Your task to perform on an android device: Open calendar and show me the fourth week of next month Image 0: 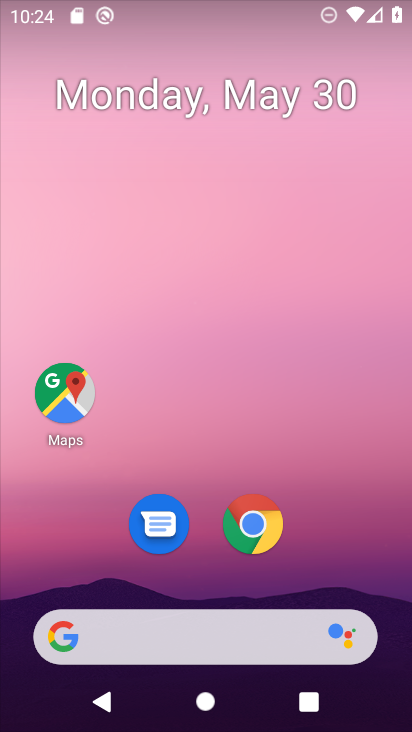
Step 0: drag from (290, 448) to (303, 15)
Your task to perform on an android device: Open calendar and show me the fourth week of next month Image 1: 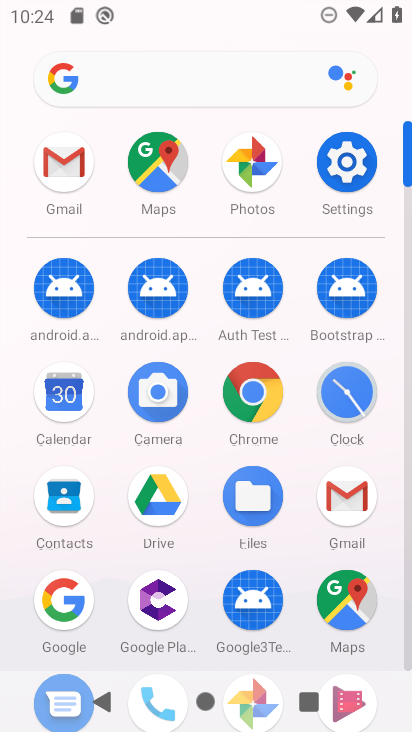
Step 1: click (72, 378)
Your task to perform on an android device: Open calendar and show me the fourth week of next month Image 2: 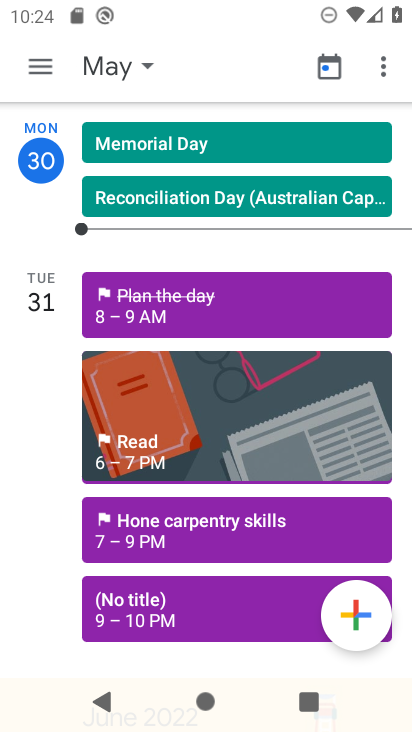
Step 2: click (34, 63)
Your task to perform on an android device: Open calendar and show me the fourth week of next month Image 3: 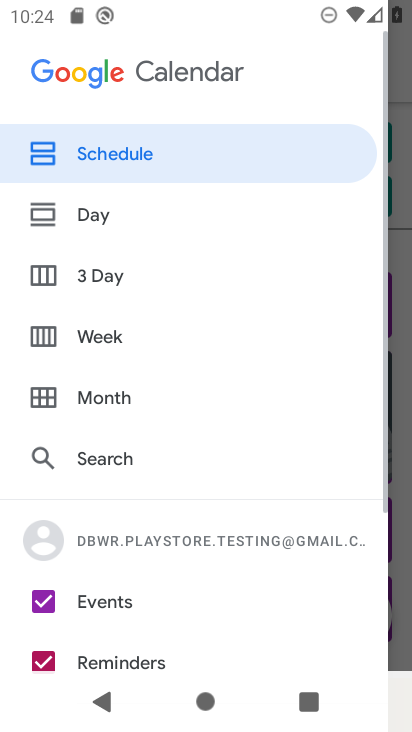
Step 3: click (47, 339)
Your task to perform on an android device: Open calendar and show me the fourth week of next month Image 4: 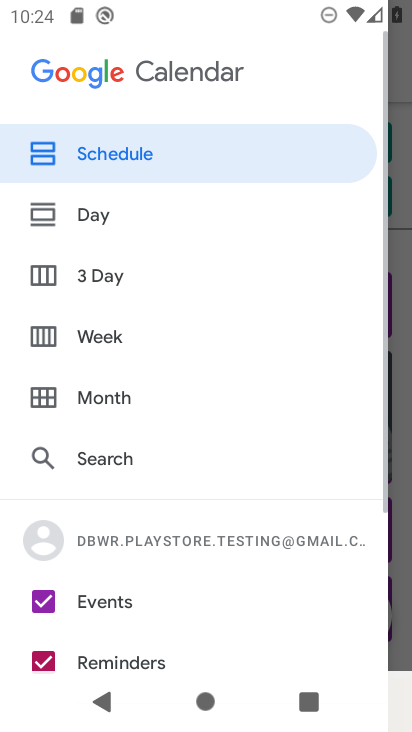
Step 4: click (45, 334)
Your task to perform on an android device: Open calendar and show me the fourth week of next month Image 5: 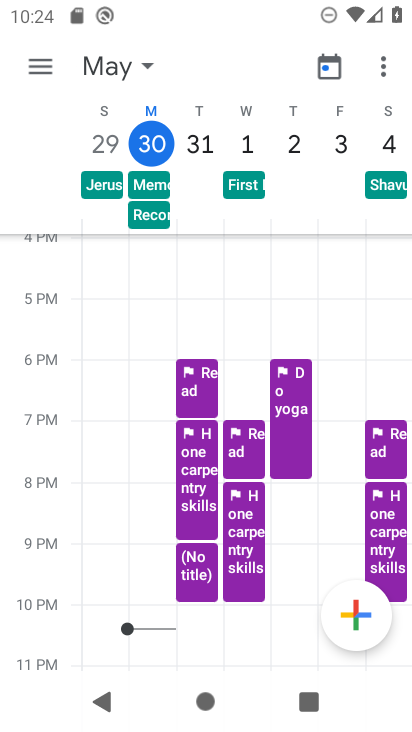
Step 5: task complete